Your task to perform on an android device: open a bookmark in the chrome app Image 0: 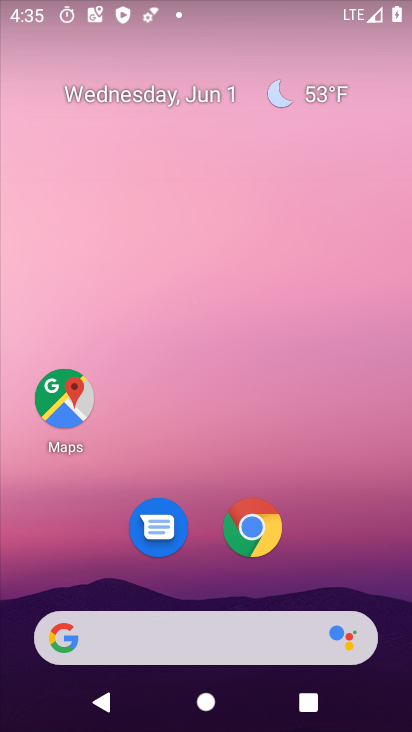
Step 0: click (248, 521)
Your task to perform on an android device: open a bookmark in the chrome app Image 1: 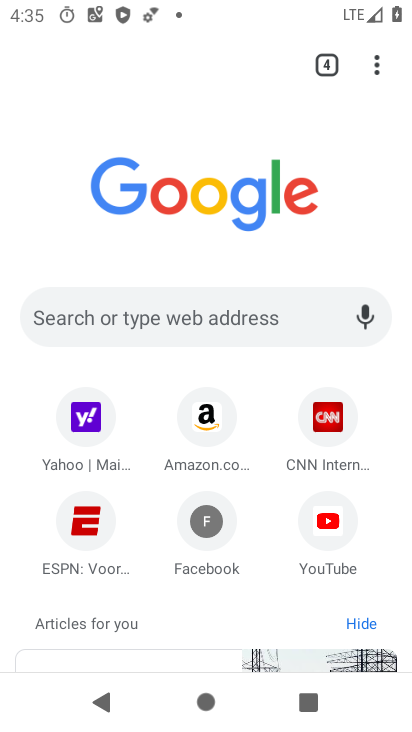
Step 1: task complete